Your task to perform on an android device: Go to Amazon Image 0: 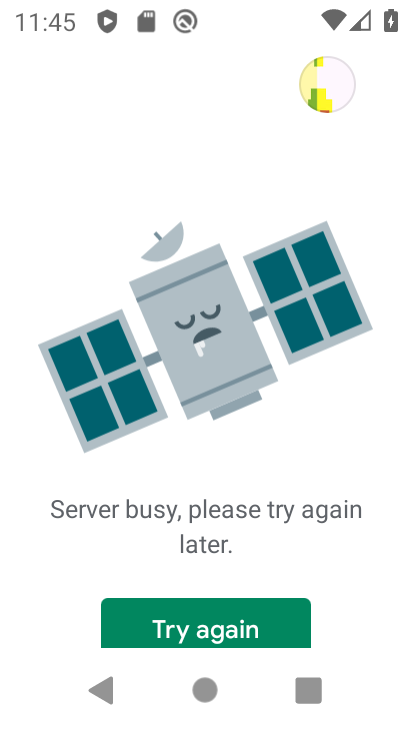
Step 0: press home button
Your task to perform on an android device: Go to Amazon Image 1: 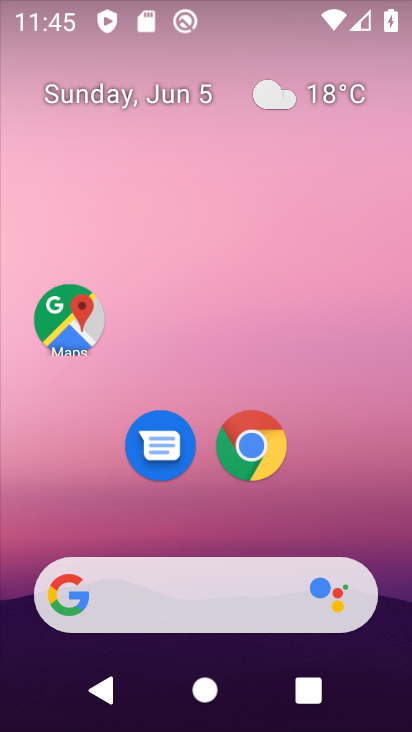
Step 1: drag from (336, 615) to (341, 24)
Your task to perform on an android device: Go to Amazon Image 2: 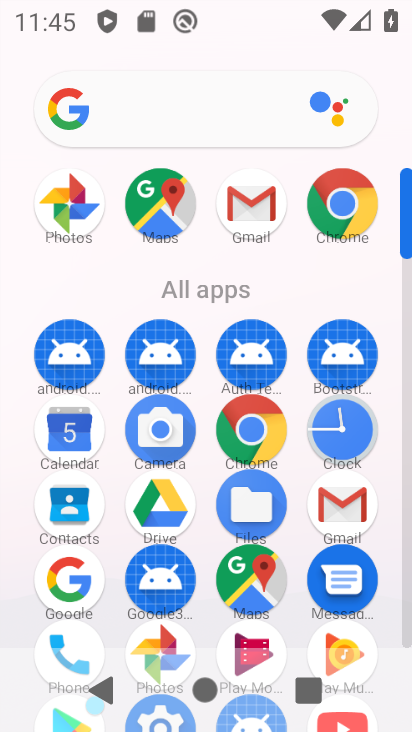
Step 2: click (254, 431)
Your task to perform on an android device: Go to Amazon Image 3: 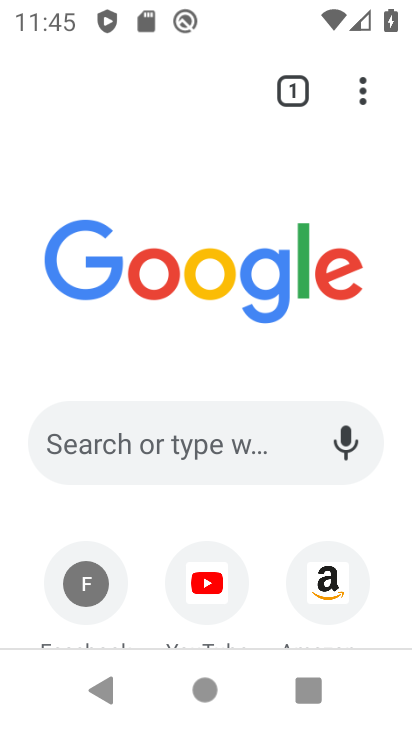
Step 3: click (339, 577)
Your task to perform on an android device: Go to Amazon Image 4: 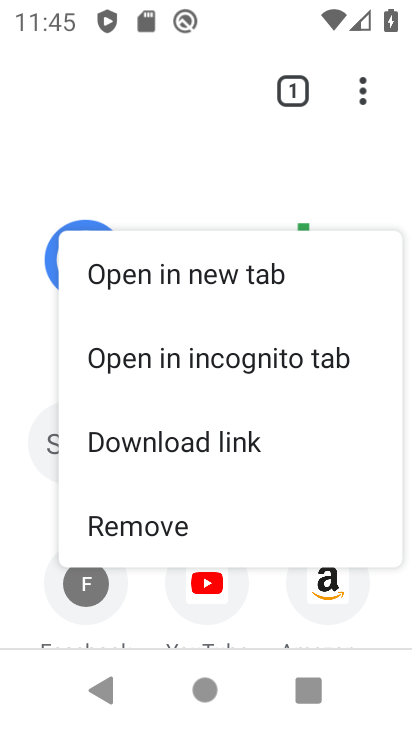
Step 4: click (271, 286)
Your task to perform on an android device: Go to Amazon Image 5: 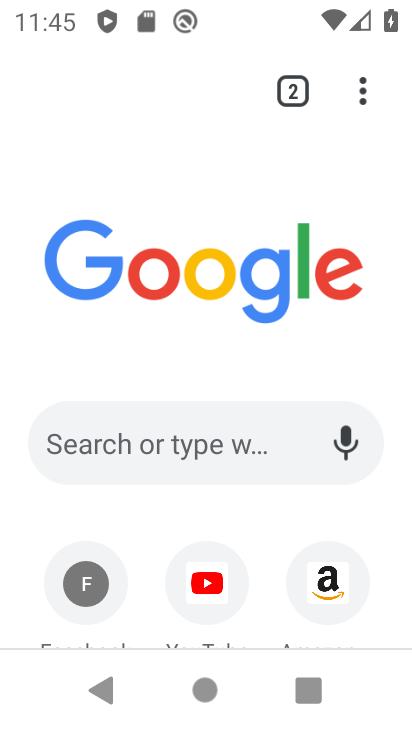
Step 5: click (319, 560)
Your task to perform on an android device: Go to Amazon Image 6: 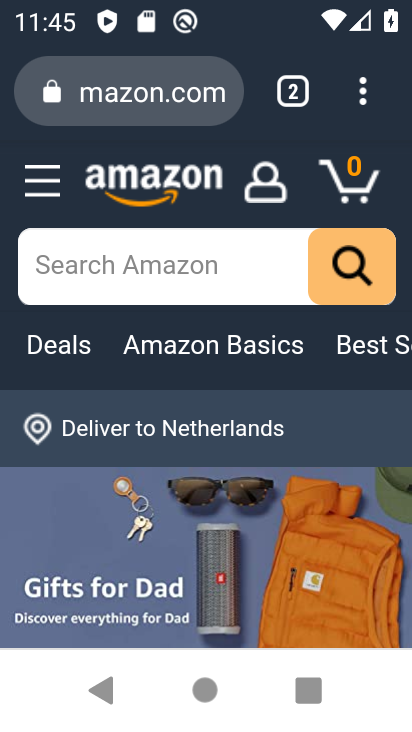
Step 6: task complete